Your task to perform on an android device: What's the weather? Image 0: 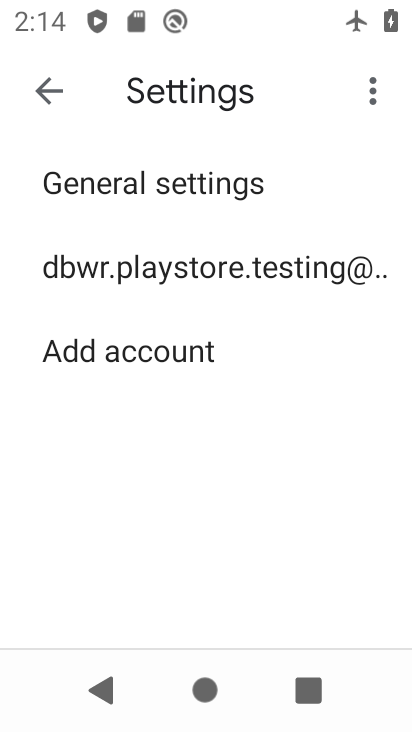
Step 0: press home button
Your task to perform on an android device: What's the weather? Image 1: 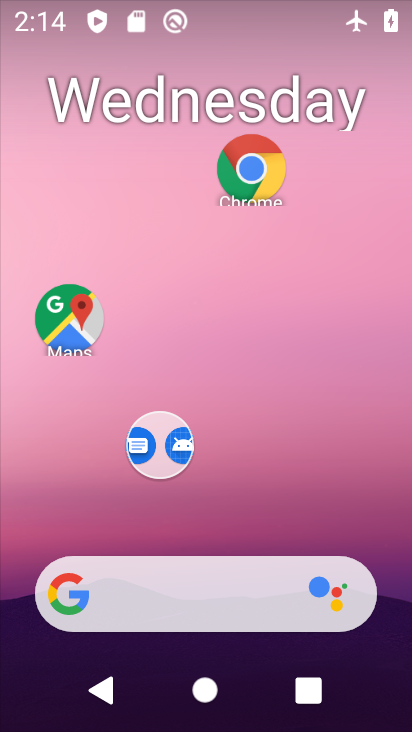
Step 1: click (158, 592)
Your task to perform on an android device: What's the weather? Image 2: 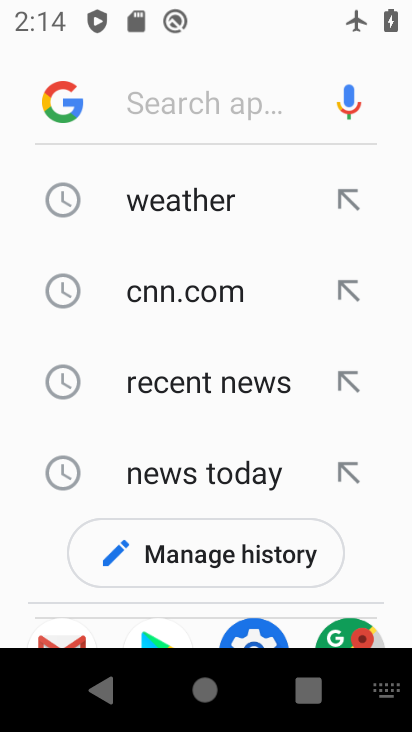
Step 2: click (116, 217)
Your task to perform on an android device: What's the weather? Image 3: 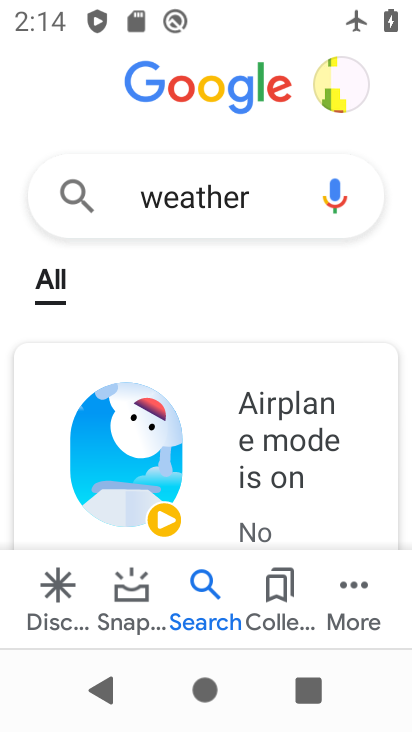
Step 3: task complete